Your task to perform on an android device: find photos in the google photos app Image 0: 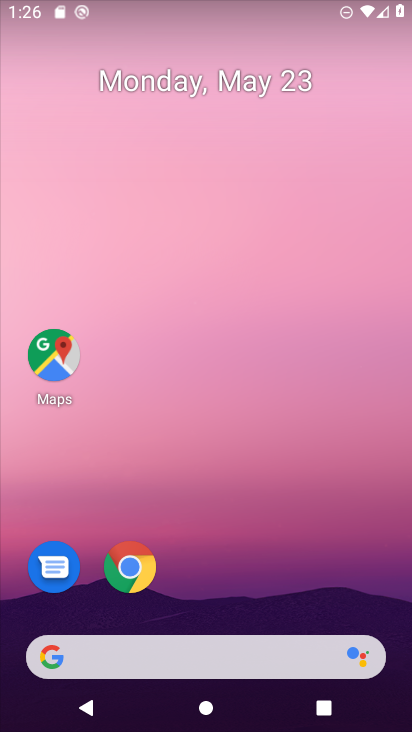
Step 0: drag from (231, 598) to (248, 154)
Your task to perform on an android device: find photos in the google photos app Image 1: 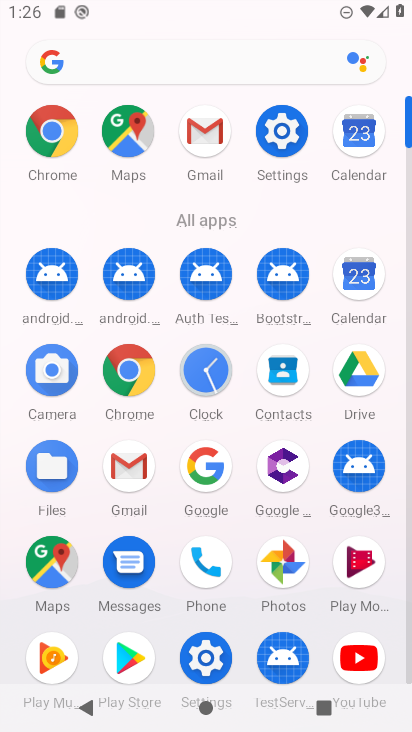
Step 1: click (272, 550)
Your task to perform on an android device: find photos in the google photos app Image 2: 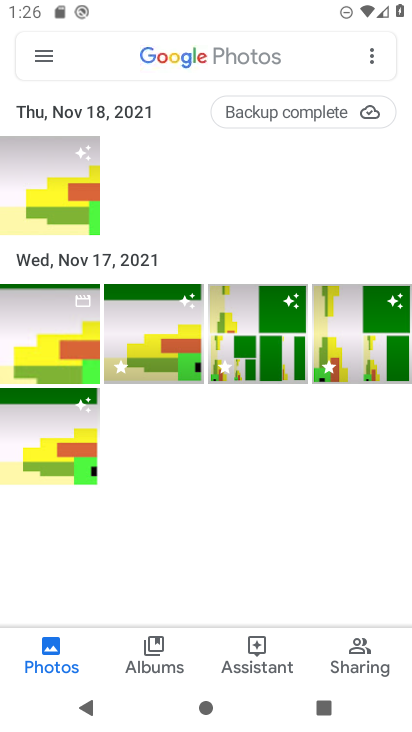
Step 2: task complete